Your task to perform on an android device: turn on translation in the chrome app Image 0: 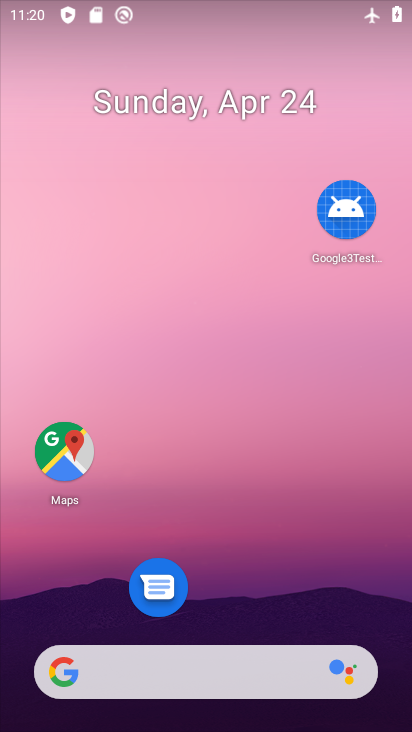
Step 0: drag from (335, 568) to (336, 108)
Your task to perform on an android device: turn on translation in the chrome app Image 1: 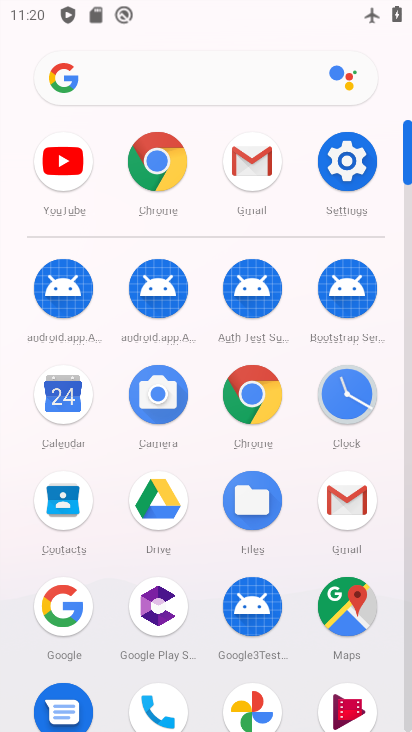
Step 1: click (246, 384)
Your task to perform on an android device: turn on translation in the chrome app Image 2: 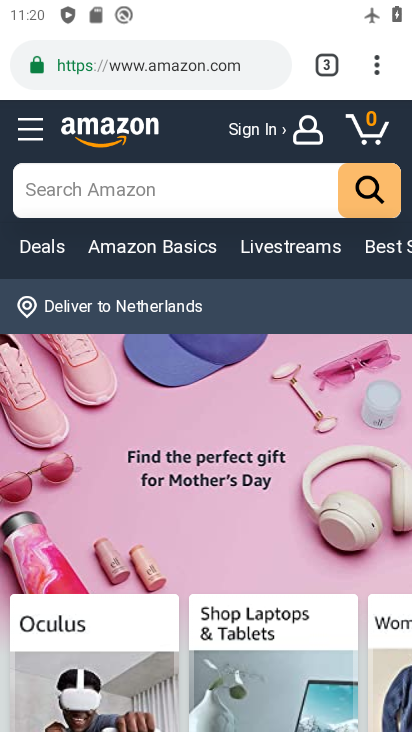
Step 2: drag from (370, 77) to (187, 633)
Your task to perform on an android device: turn on translation in the chrome app Image 3: 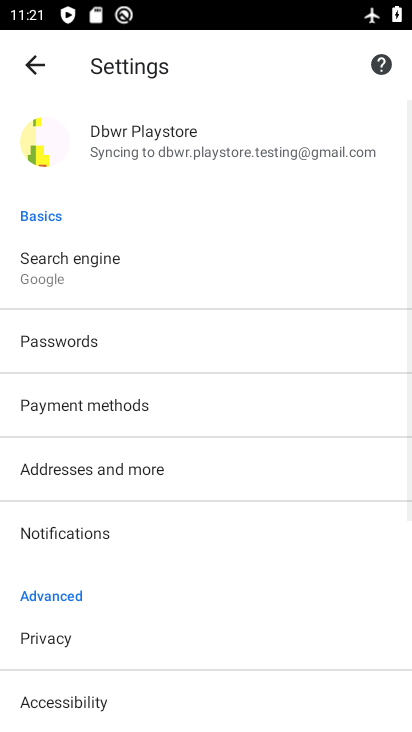
Step 3: drag from (194, 634) to (262, 290)
Your task to perform on an android device: turn on translation in the chrome app Image 4: 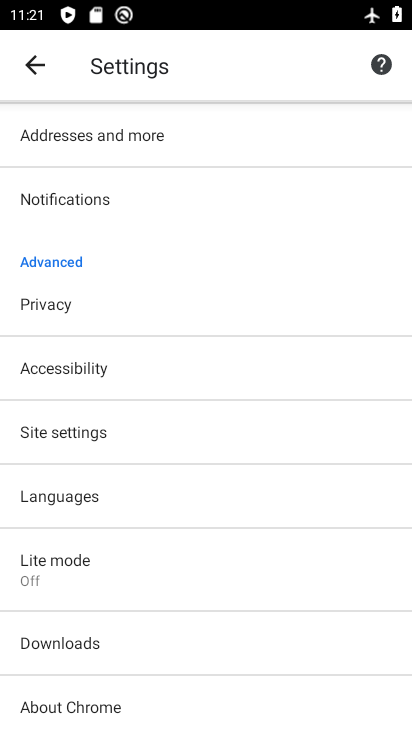
Step 4: click (122, 507)
Your task to perform on an android device: turn on translation in the chrome app Image 5: 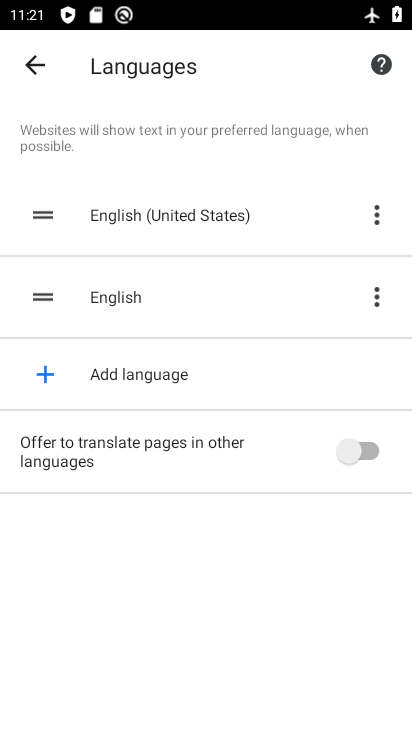
Step 5: click (373, 450)
Your task to perform on an android device: turn on translation in the chrome app Image 6: 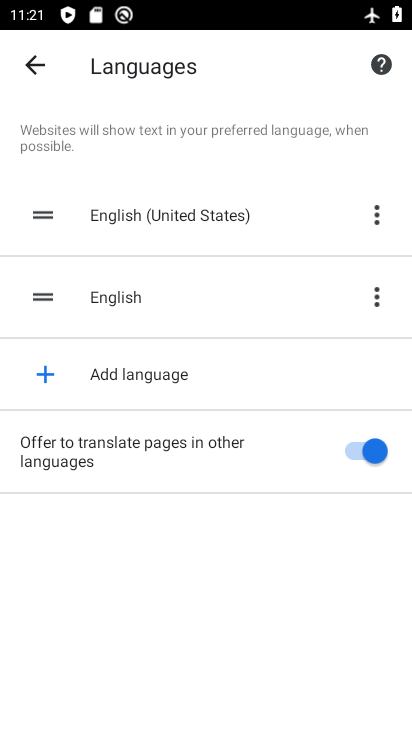
Step 6: task complete